Your task to perform on an android device: Open calendar and show me the fourth week of next month Image 0: 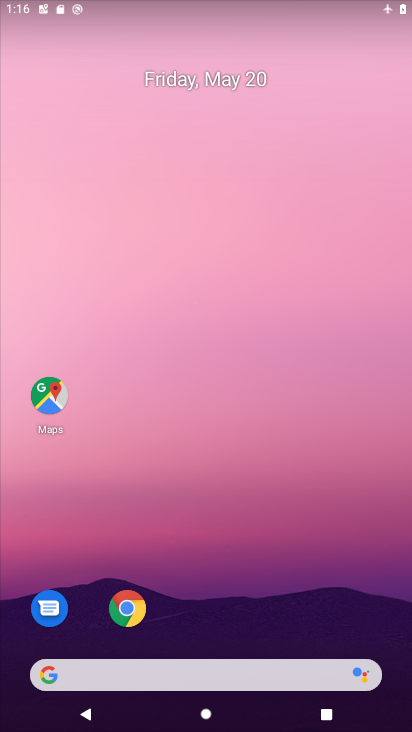
Step 0: drag from (215, 593) to (229, 149)
Your task to perform on an android device: Open calendar and show me the fourth week of next month Image 1: 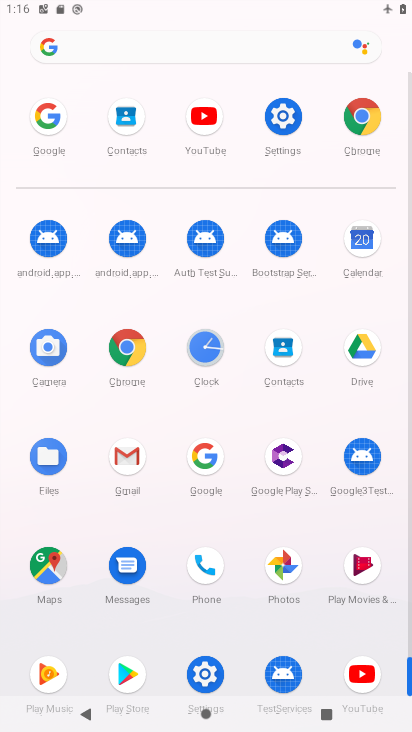
Step 1: click (364, 240)
Your task to perform on an android device: Open calendar and show me the fourth week of next month Image 2: 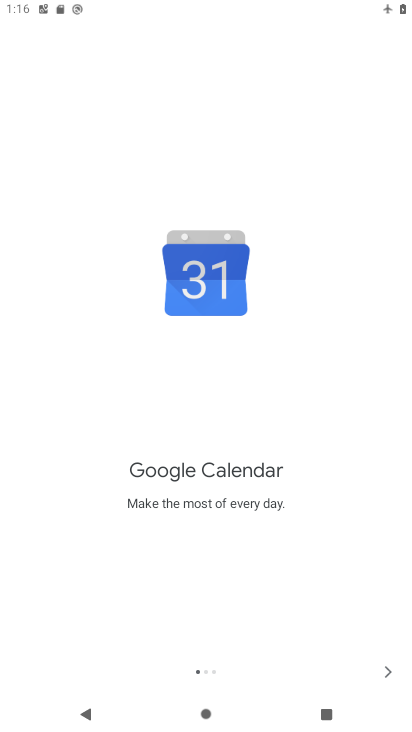
Step 2: click (380, 674)
Your task to perform on an android device: Open calendar and show me the fourth week of next month Image 3: 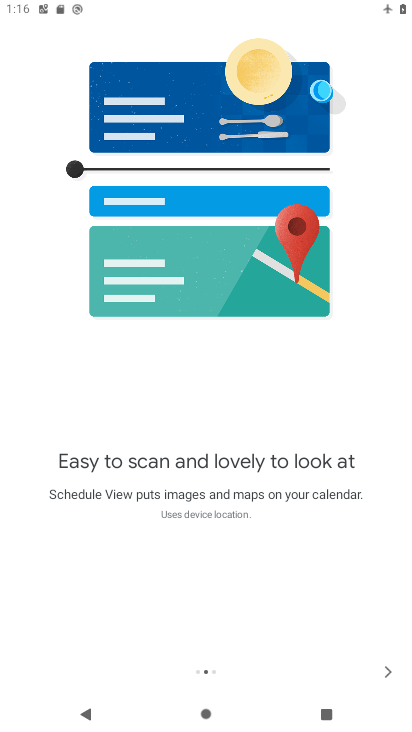
Step 3: click (380, 674)
Your task to perform on an android device: Open calendar and show me the fourth week of next month Image 4: 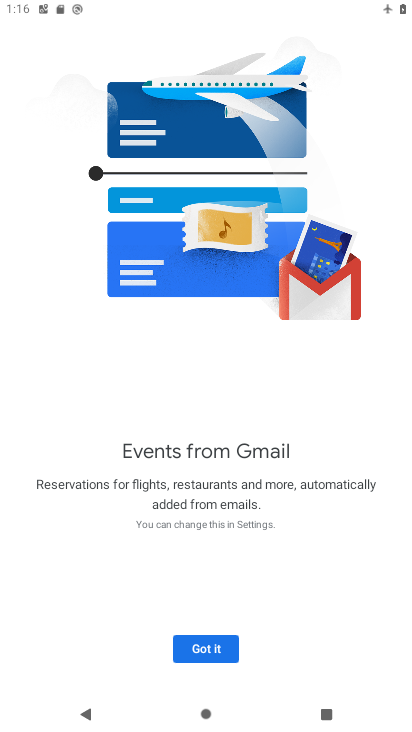
Step 4: click (227, 654)
Your task to perform on an android device: Open calendar and show me the fourth week of next month Image 5: 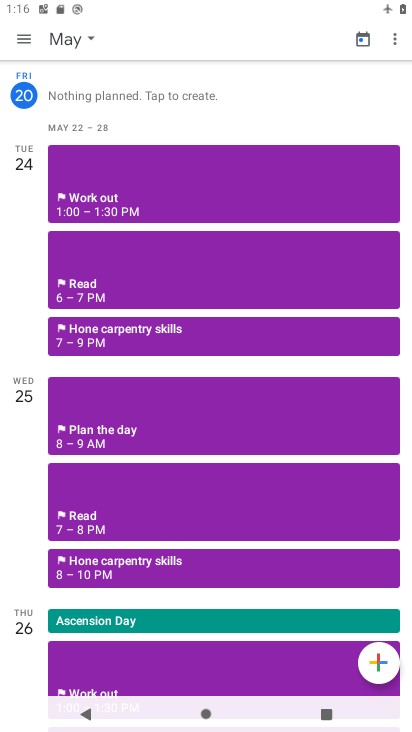
Step 5: click (62, 42)
Your task to perform on an android device: Open calendar and show me the fourth week of next month Image 6: 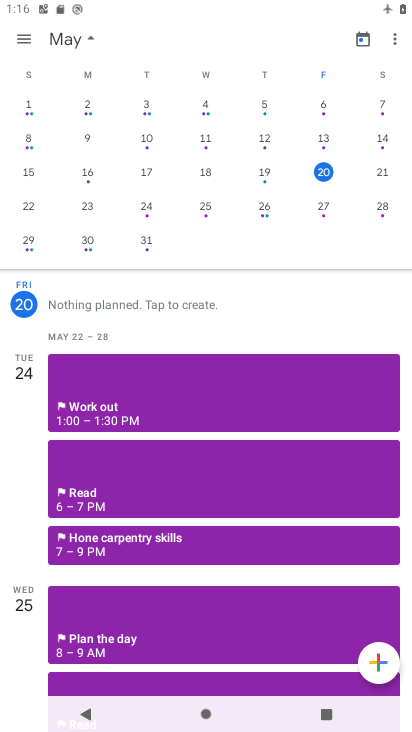
Step 6: drag from (338, 159) to (30, 142)
Your task to perform on an android device: Open calendar and show me the fourth week of next month Image 7: 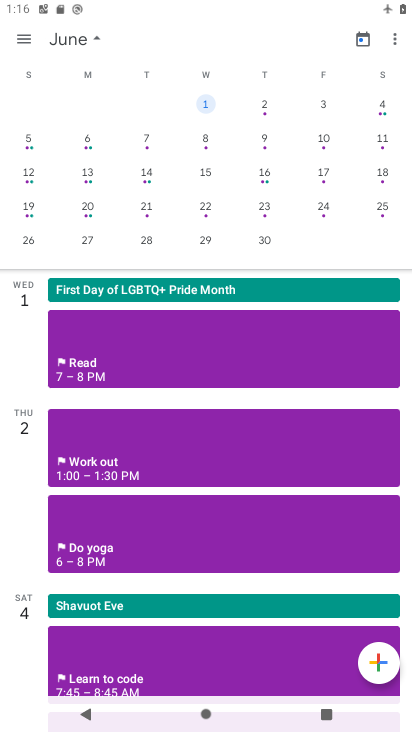
Step 7: click (29, 208)
Your task to perform on an android device: Open calendar and show me the fourth week of next month Image 8: 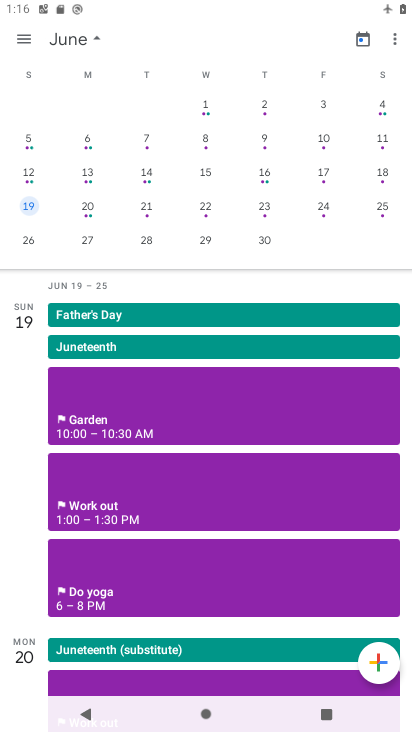
Step 8: click (89, 208)
Your task to perform on an android device: Open calendar and show me the fourth week of next month Image 9: 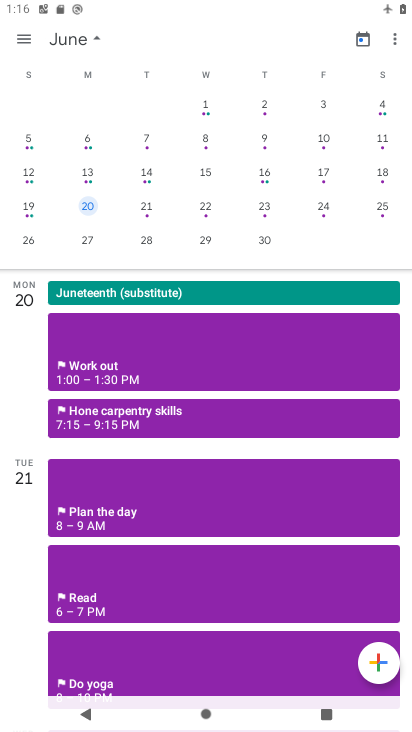
Step 9: click (154, 212)
Your task to perform on an android device: Open calendar and show me the fourth week of next month Image 10: 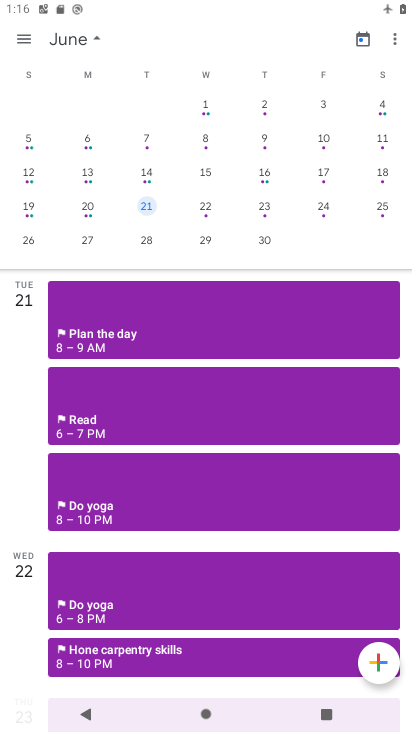
Step 10: click (204, 213)
Your task to perform on an android device: Open calendar and show me the fourth week of next month Image 11: 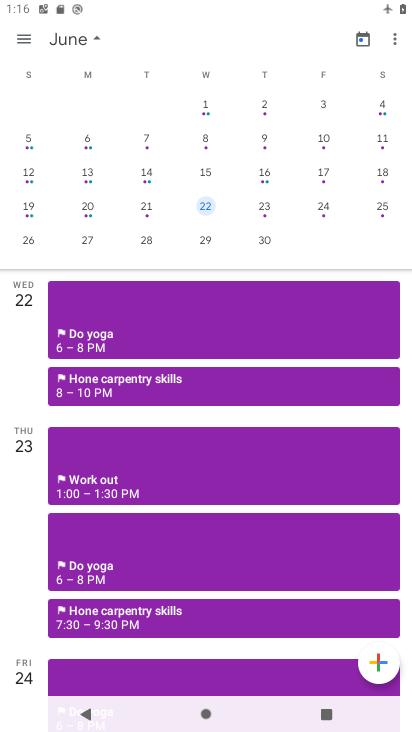
Step 11: click (266, 212)
Your task to perform on an android device: Open calendar and show me the fourth week of next month Image 12: 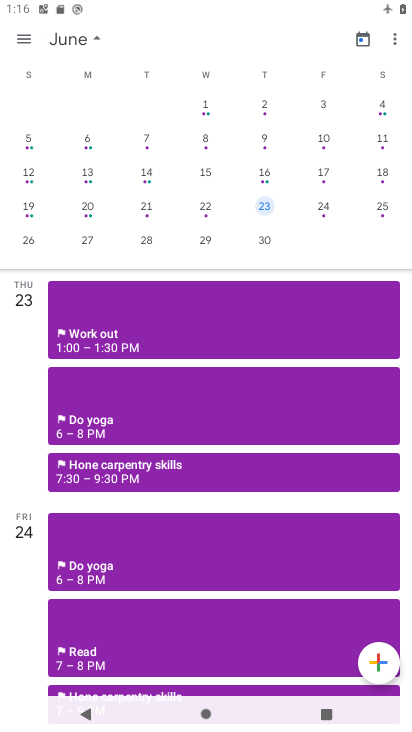
Step 12: click (339, 212)
Your task to perform on an android device: Open calendar and show me the fourth week of next month Image 13: 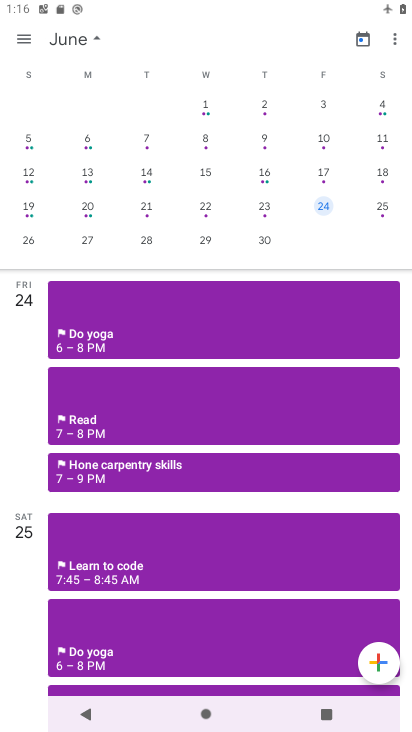
Step 13: click (392, 215)
Your task to perform on an android device: Open calendar and show me the fourth week of next month Image 14: 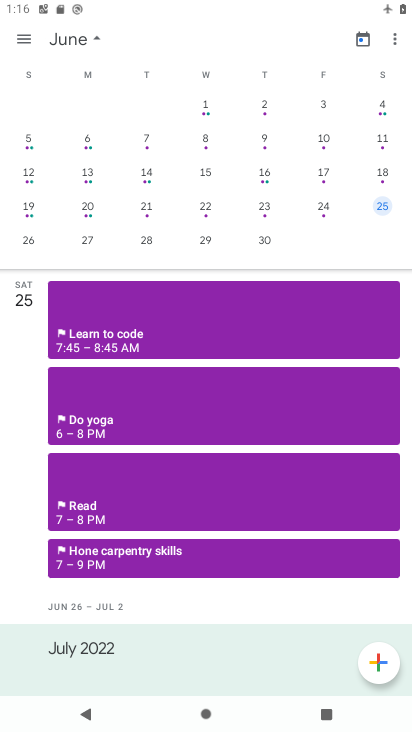
Step 14: task complete